Your task to perform on an android device: read, delete, or share a saved page in the chrome app Image 0: 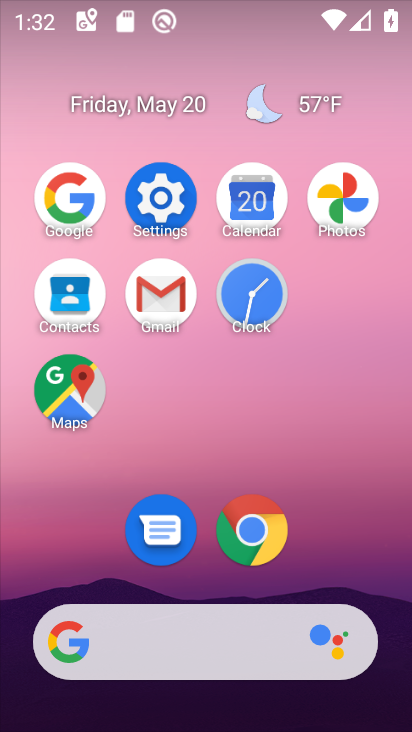
Step 0: click (239, 521)
Your task to perform on an android device: read, delete, or share a saved page in the chrome app Image 1: 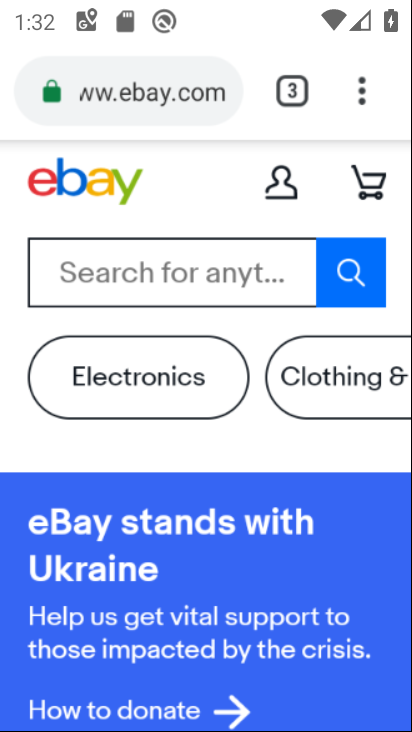
Step 1: click (366, 84)
Your task to perform on an android device: read, delete, or share a saved page in the chrome app Image 2: 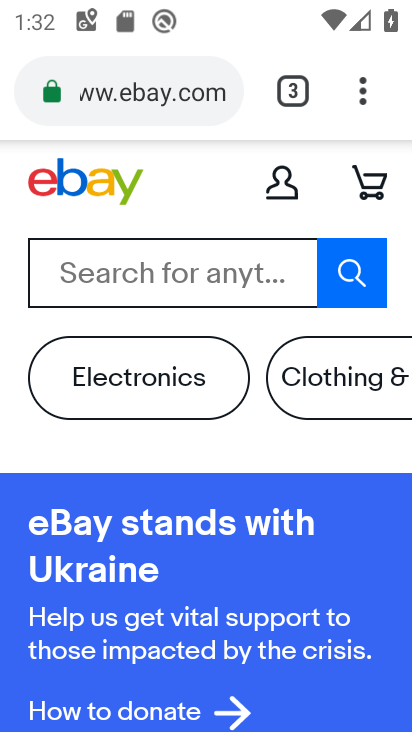
Step 2: click (376, 94)
Your task to perform on an android device: read, delete, or share a saved page in the chrome app Image 3: 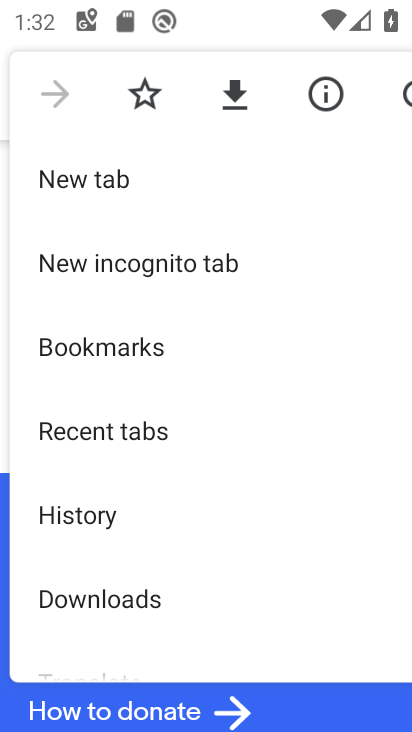
Step 3: drag from (139, 504) to (208, 157)
Your task to perform on an android device: read, delete, or share a saved page in the chrome app Image 4: 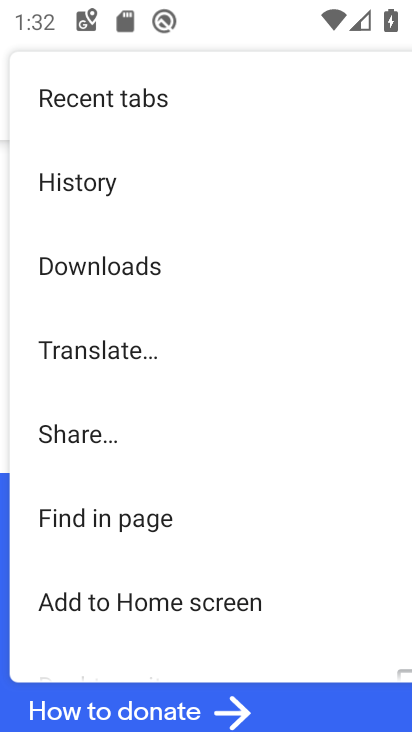
Step 4: click (162, 269)
Your task to perform on an android device: read, delete, or share a saved page in the chrome app Image 5: 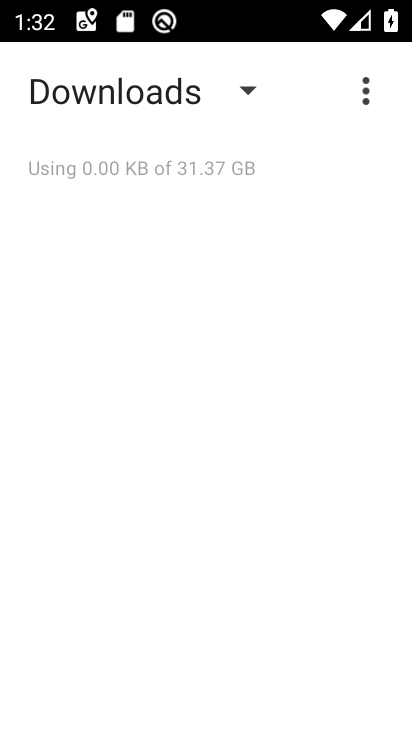
Step 5: task complete